Your task to perform on an android device: Open Google Maps Image 0: 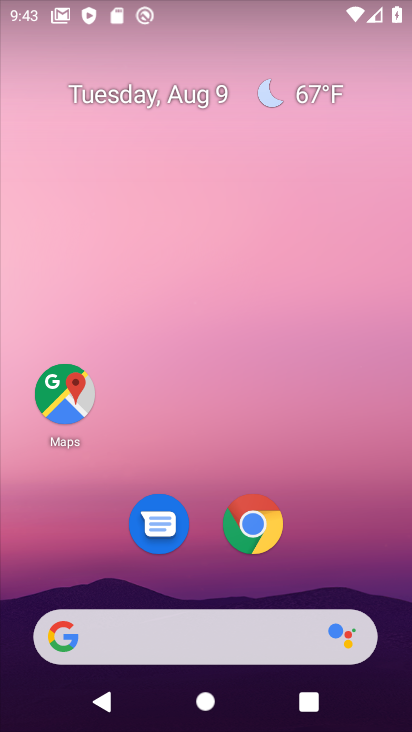
Step 0: click (88, 379)
Your task to perform on an android device: Open Google Maps Image 1: 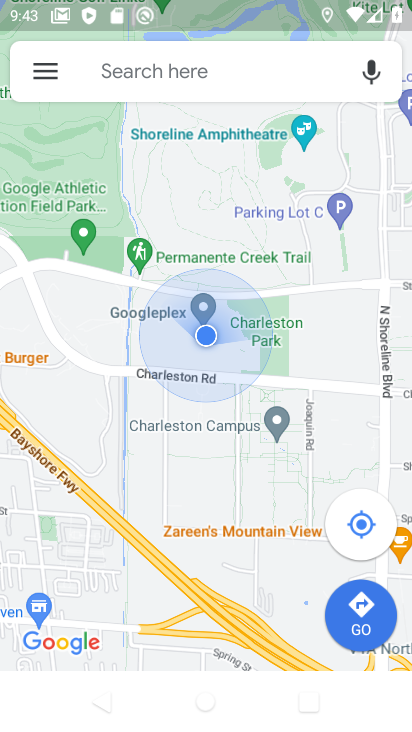
Step 1: task complete